Your task to perform on an android device: check google app version Image 0: 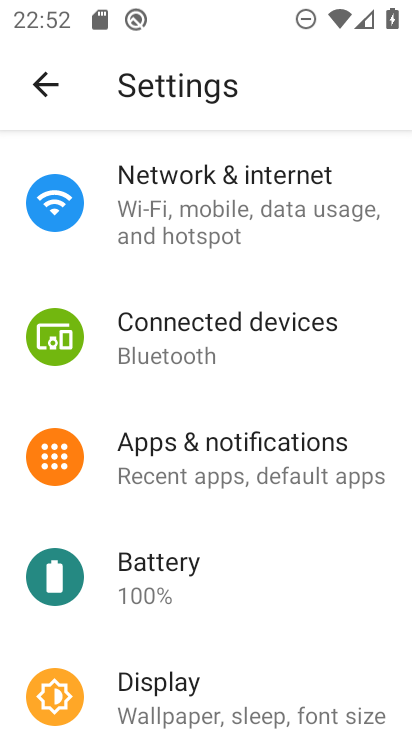
Step 0: press home button
Your task to perform on an android device: check google app version Image 1: 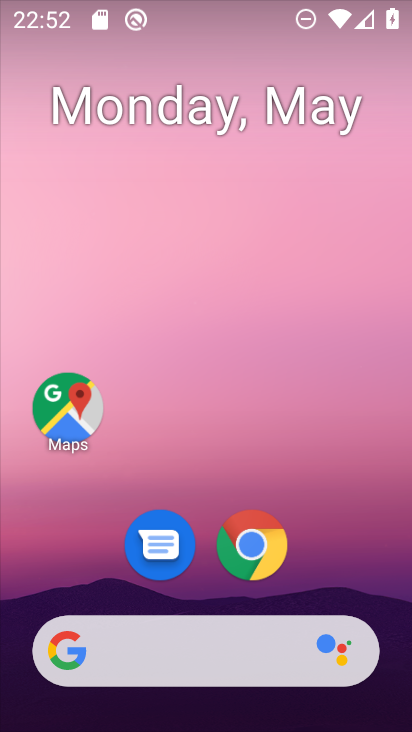
Step 1: click (141, 652)
Your task to perform on an android device: check google app version Image 2: 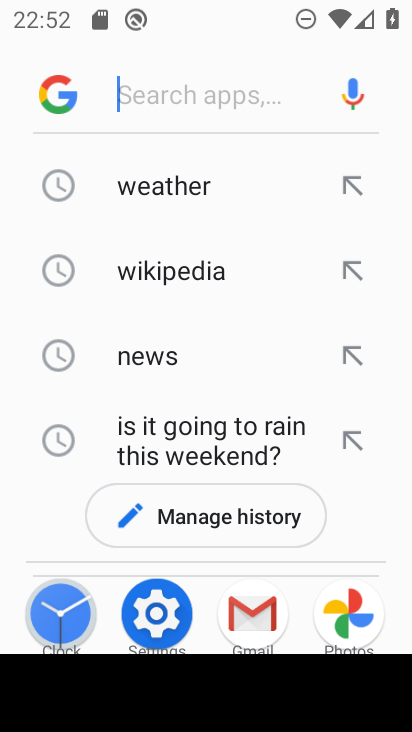
Step 2: click (64, 83)
Your task to perform on an android device: check google app version Image 3: 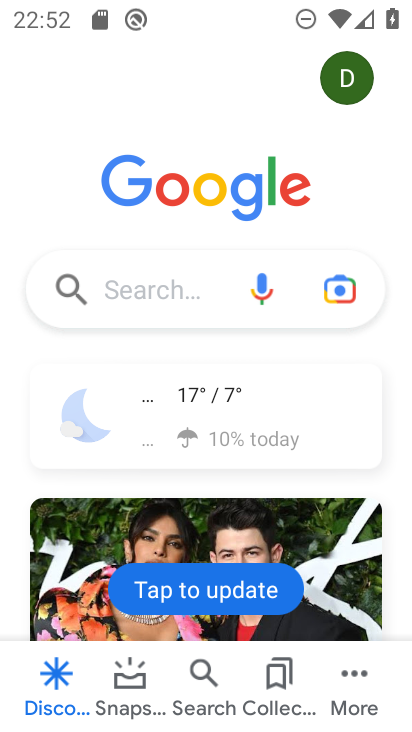
Step 3: click (360, 677)
Your task to perform on an android device: check google app version Image 4: 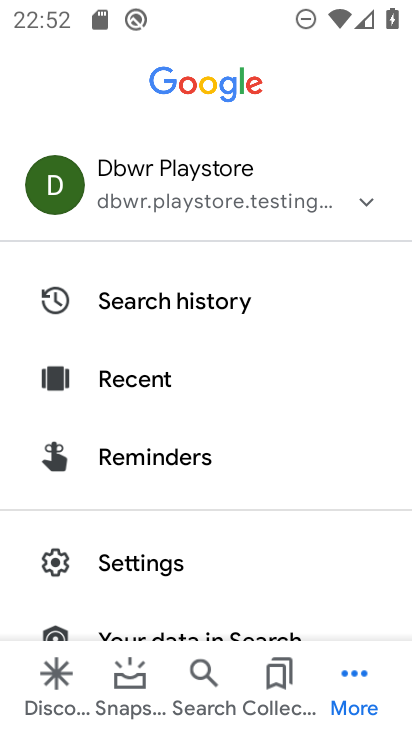
Step 4: drag from (288, 531) to (243, 130)
Your task to perform on an android device: check google app version Image 5: 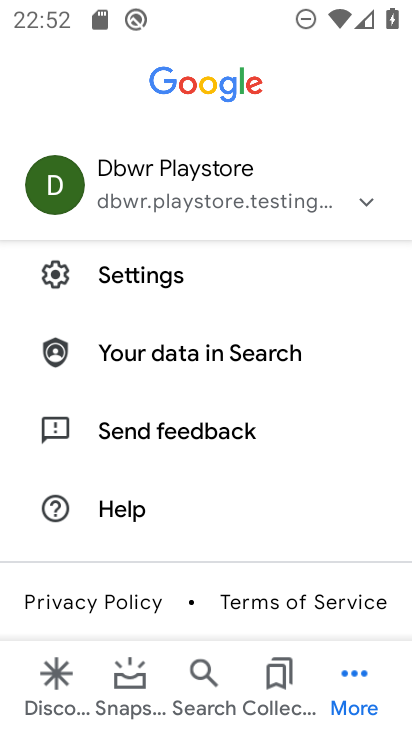
Step 5: click (138, 274)
Your task to perform on an android device: check google app version Image 6: 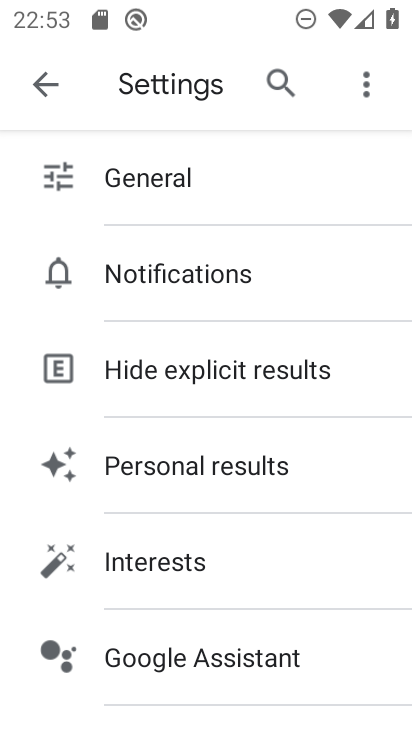
Step 6: drag from (287, 626) to (270, 303)
Your task to perform on an android device: check google app version Image 7: 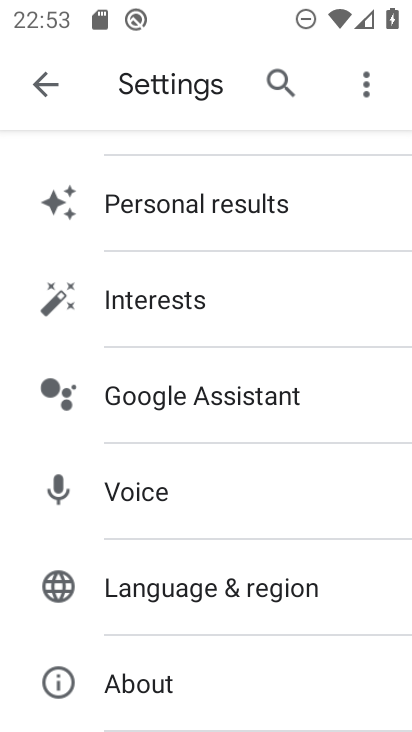
Step 7: drag from (189, 615) to (194, 227)
Your task to perform on an android device: check google app version Image 8: 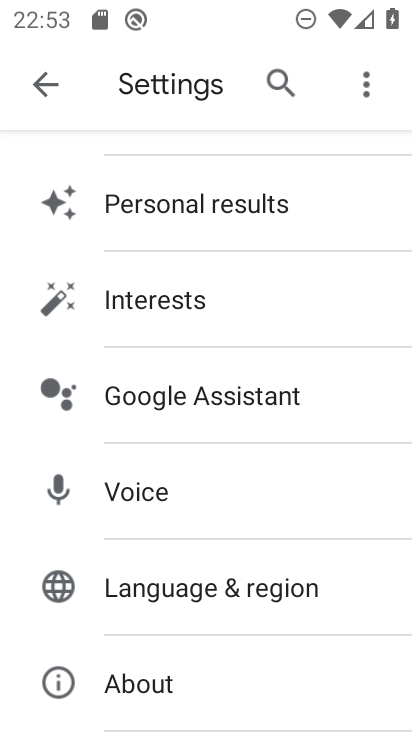
Step 8: click (130, 686)
Your task to perform on an android device: check google app version Image 9: 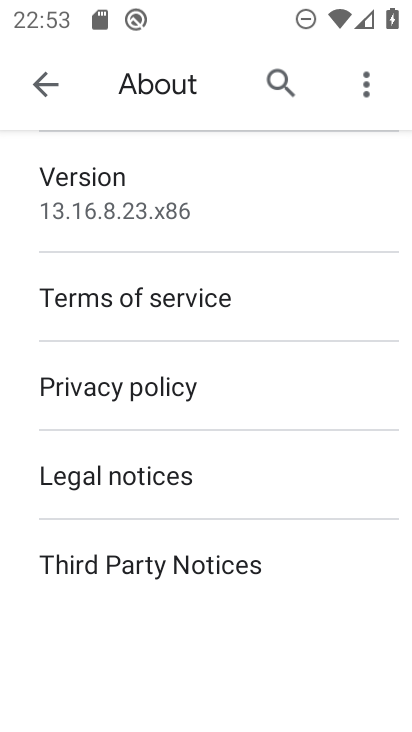
Step 9: task complete